Your task to perform on an android device: Open the calendar app, open the side menu, and click the "Day" option Image 0: 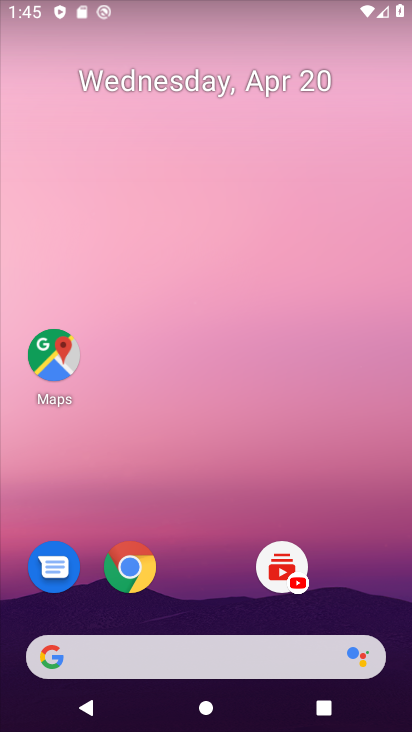
Step 0: drag from (250, 547) to (304, 56)
Your task to perform on an android device: Open the calendar app, open the side menu, and click the "Day" option Image 1: 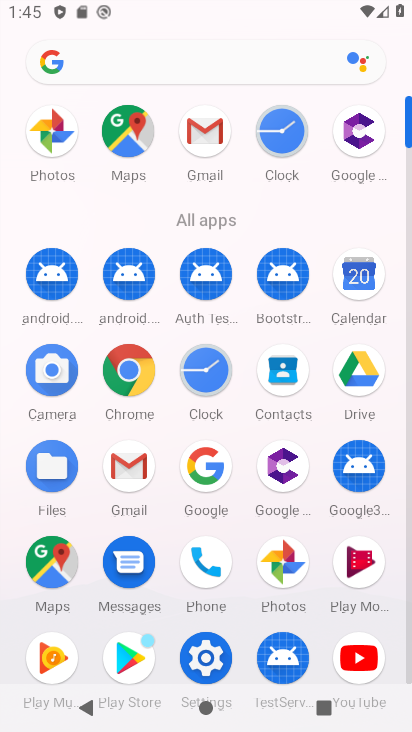
Step 1: click (370, 280)
Your task to perform on an android device: Open the calendar app, open the side menu, and click the "Day" option Image 2: 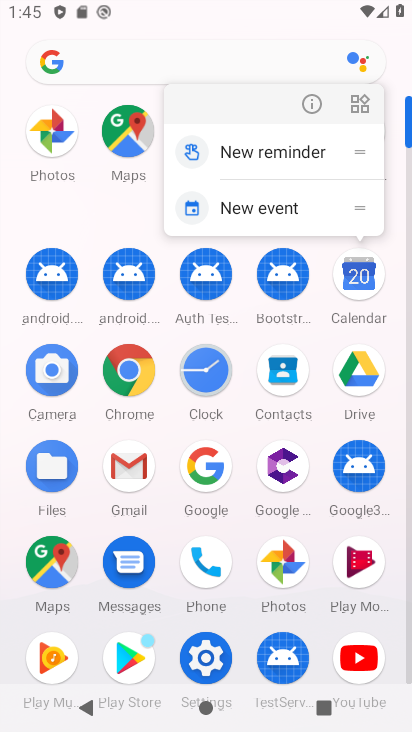
Step 2: click (315, 110)
Your task to perform on an android device: Open the calendar app, open the side menu, and click the "Day" option Image 3: 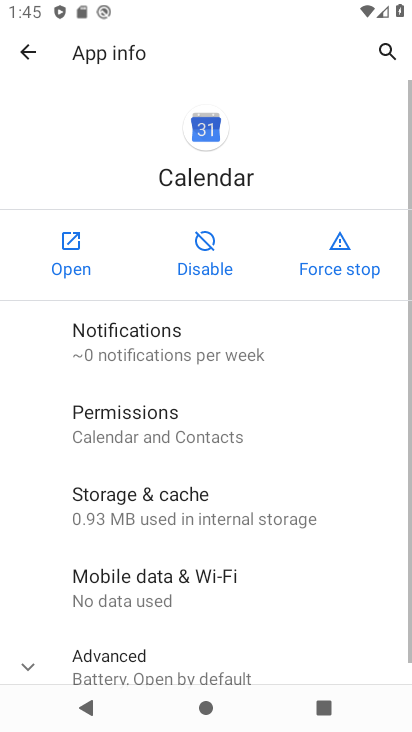
Step 3: click (64, 242)
Your task to perform on an android device: Open the calendar app, open the side menu, and click the "Day" option Image 4: 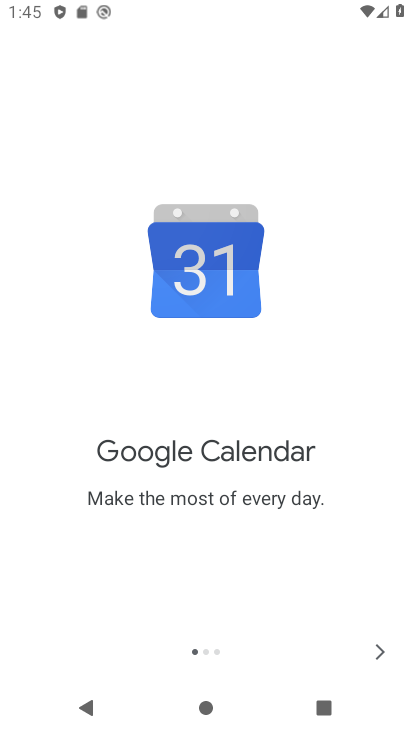
Step 4: click (388, 655)
Your task to perform on an android device: Open the calendar app, open the side menu, and click the "Day" option Image 5: 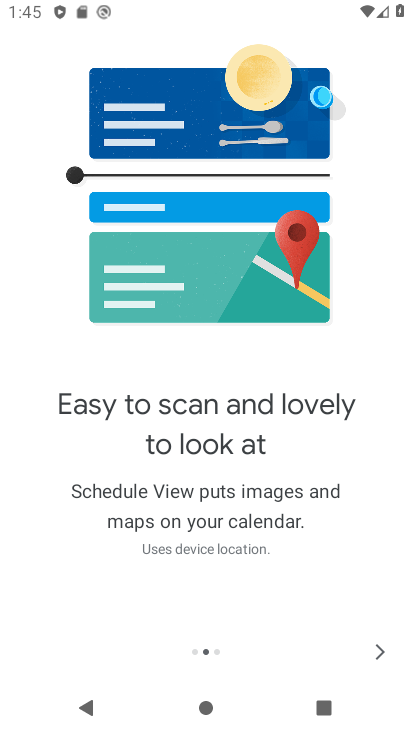
Step 5: click (383, 650)
Your task to perform on an android device: Open the calendar app, open the side menu, and click the "Day" option Image 6: 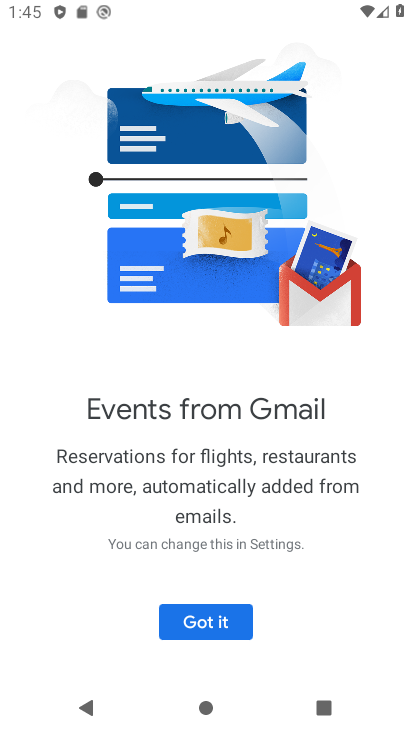
Step 6: click (192, 615)
Your task to perform on an android device: Open the calendar app, open the side menu, and click the "Day" option Image 7: 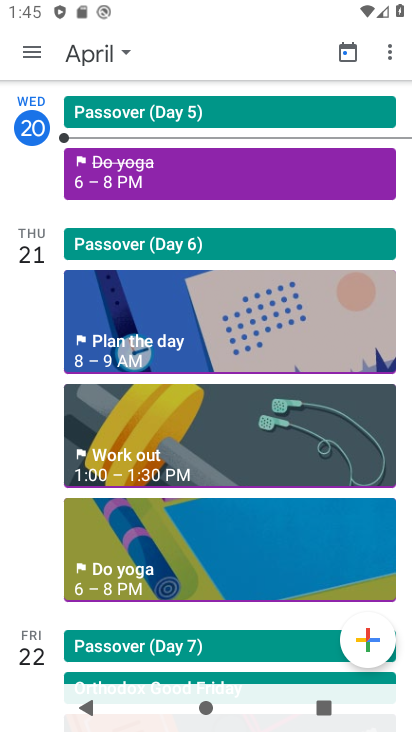
Step 7: click (41, 61)
Your task to perform on an android device: Open the calendar app, open the side menu, and click the "Day" option Image 8: 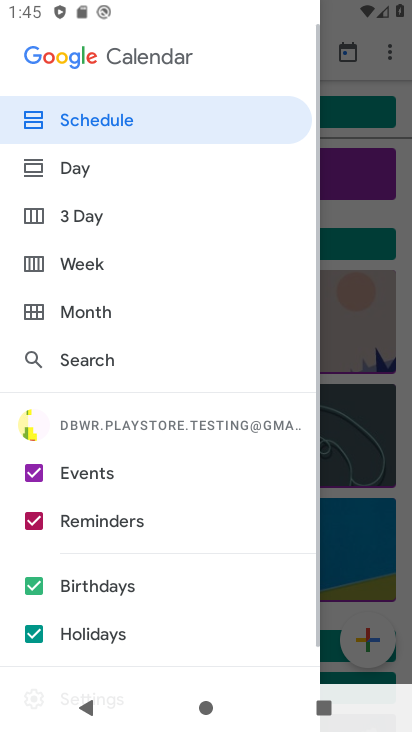
Step 8: click (124, 164)
Your task to perform on an android device: Open the calendar app, open the side menu, and click the "Day" option Image 9: 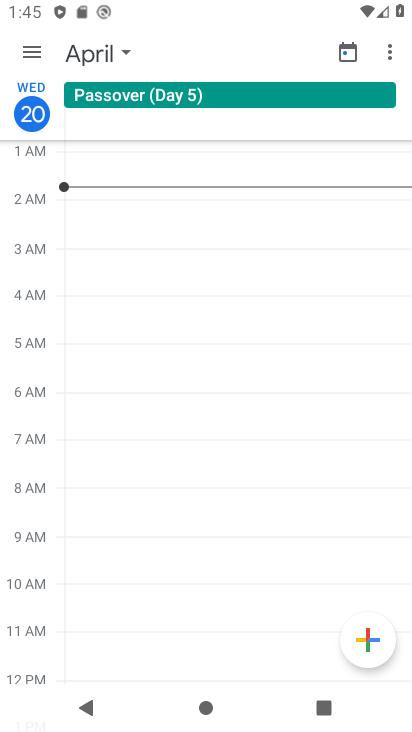
Step 9: task complete